Your task to perform on an android device: Clear the cart on amazon. Image 0: 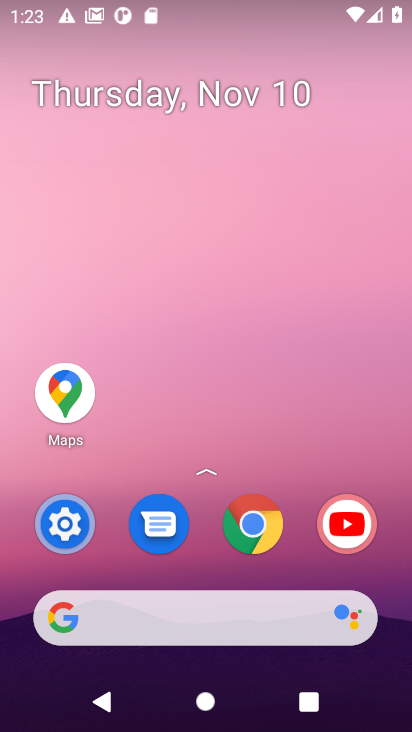
Step 0: click (251, 523)
Your task to perform on an android device: Clear the cart on amazon. Image 1: 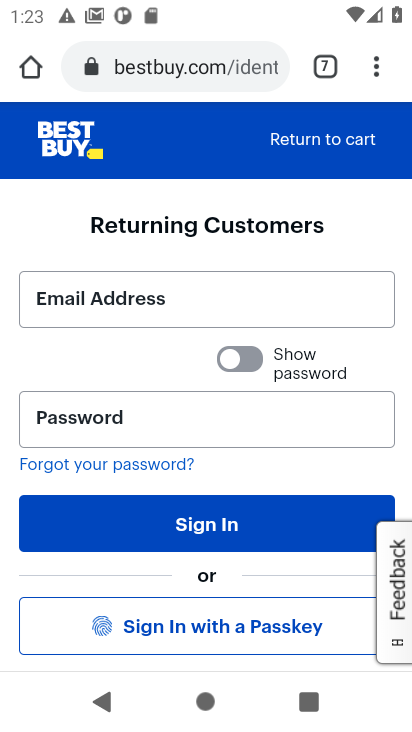
Step 1: click (326, 68)
Your task to perform on an android device: Clear the cart on amazon. Image 2: 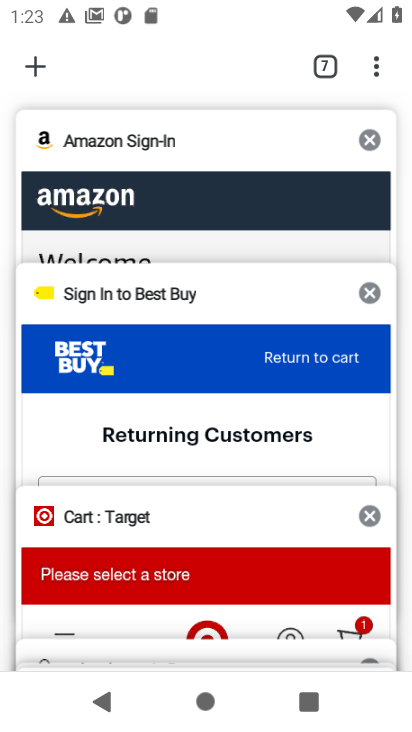
Step 2: click (198, 198)
Your task to perform on an android device: Clear the cart on amazon. Image 3: 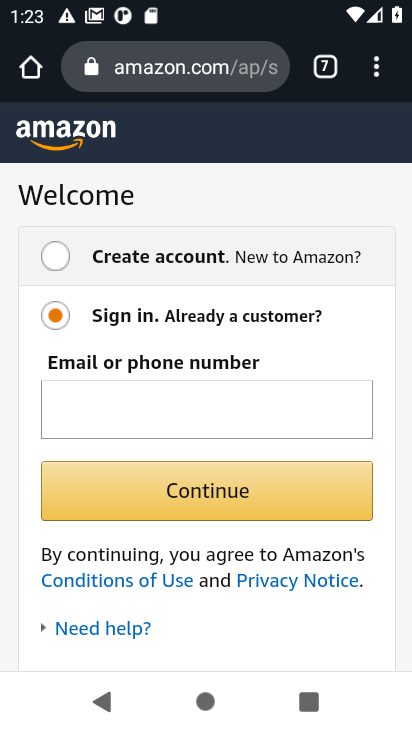
Step 3: press back button
Your task to perform on an android device: Clear the cart on amazon. Image 4: 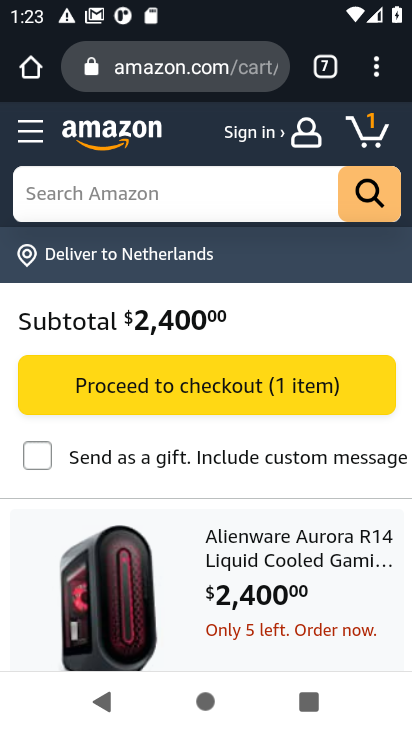
Step 4: drag from (338, 572) to (402, 140)
Your task to perform on an android device: Clear the cart on amazon. Image 5: 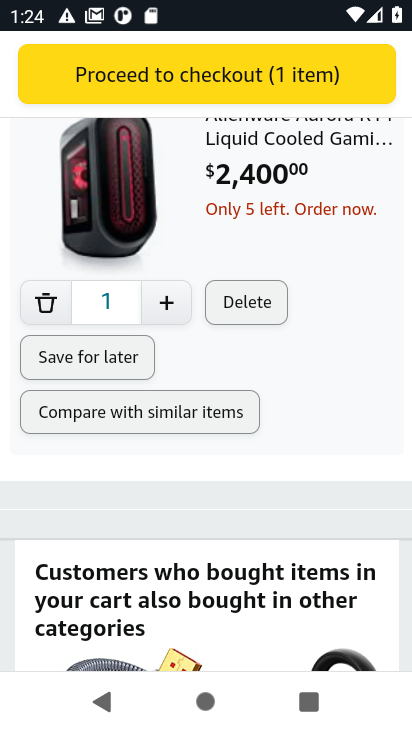
Step 5: click (246, 305)
Your task to perform on an android device: Clear the cart on amazon. Image 6: 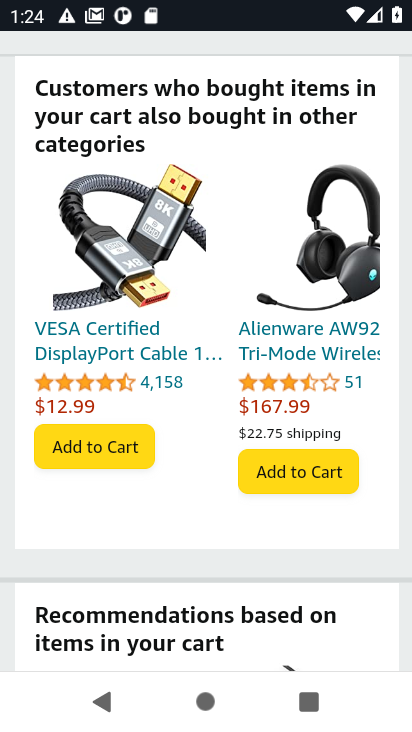
Step 6: task complete